Your task to perform on an android device: visit the assistant section in the google photos Image 0: 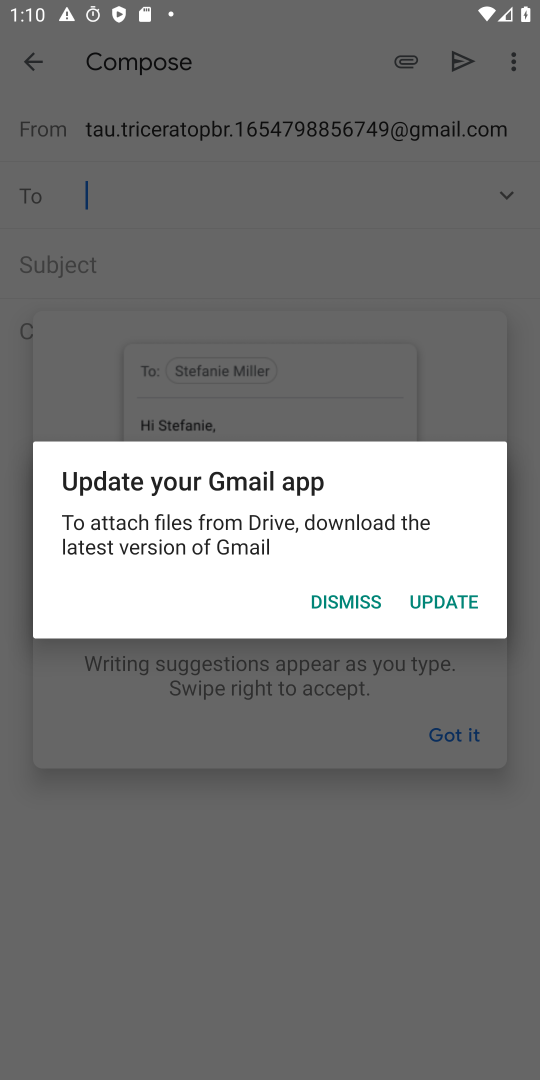
Step 0: press home button
Your task to perform on an android device: visit the assistant section in the google photos Image 1: 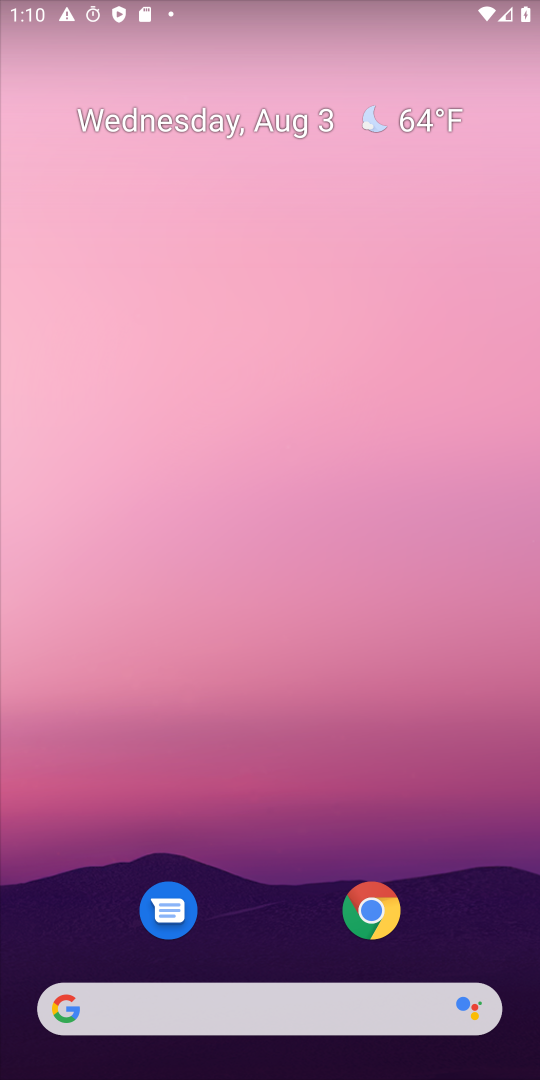
Step 1: drag from (325, 1014) to (384, 31)
Your task to perform on an android device: visit the assistant section in the google photos Image 2: 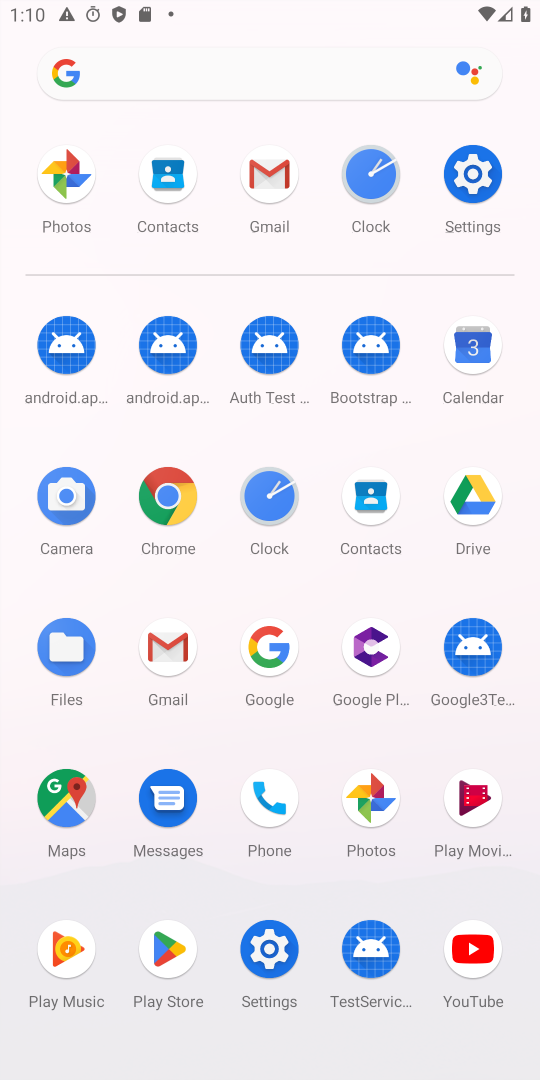
Step 2: click (370, 808)
Your task to perform on an android device: visit the assistant section in the google photos Image 3: 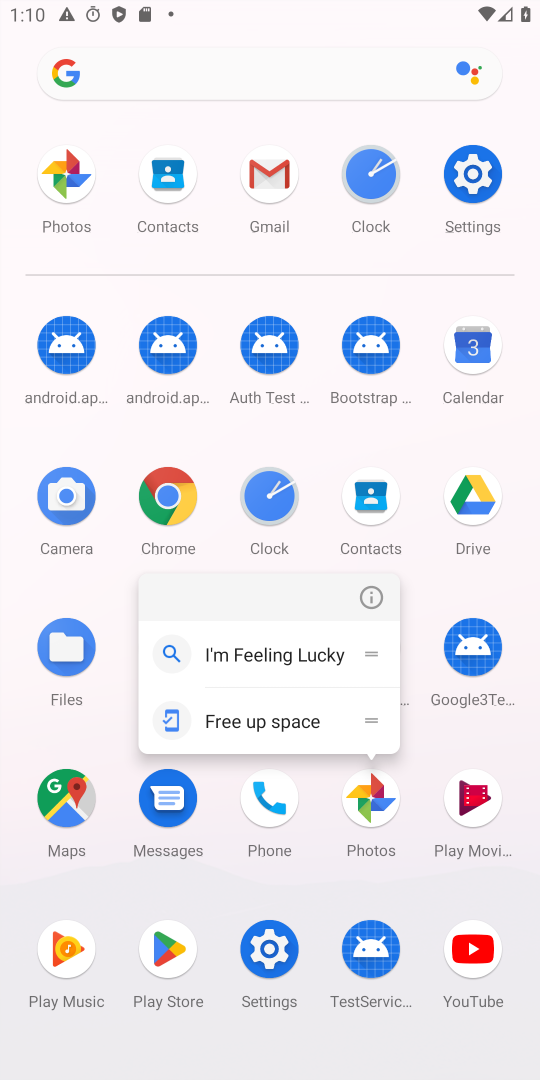
Step 3: click (370, 808)
Your task to perform on an android device: visit the assistant section in the google photos Image 4: 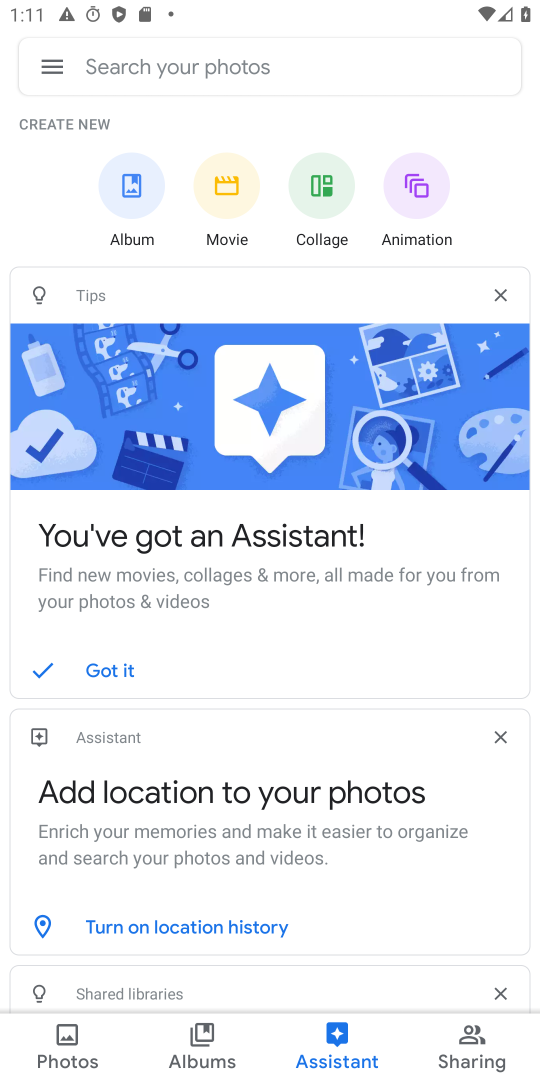
Step 4: task complete